Your task to perform on an android device: Search for pizza restaurants on Maps Image 0: 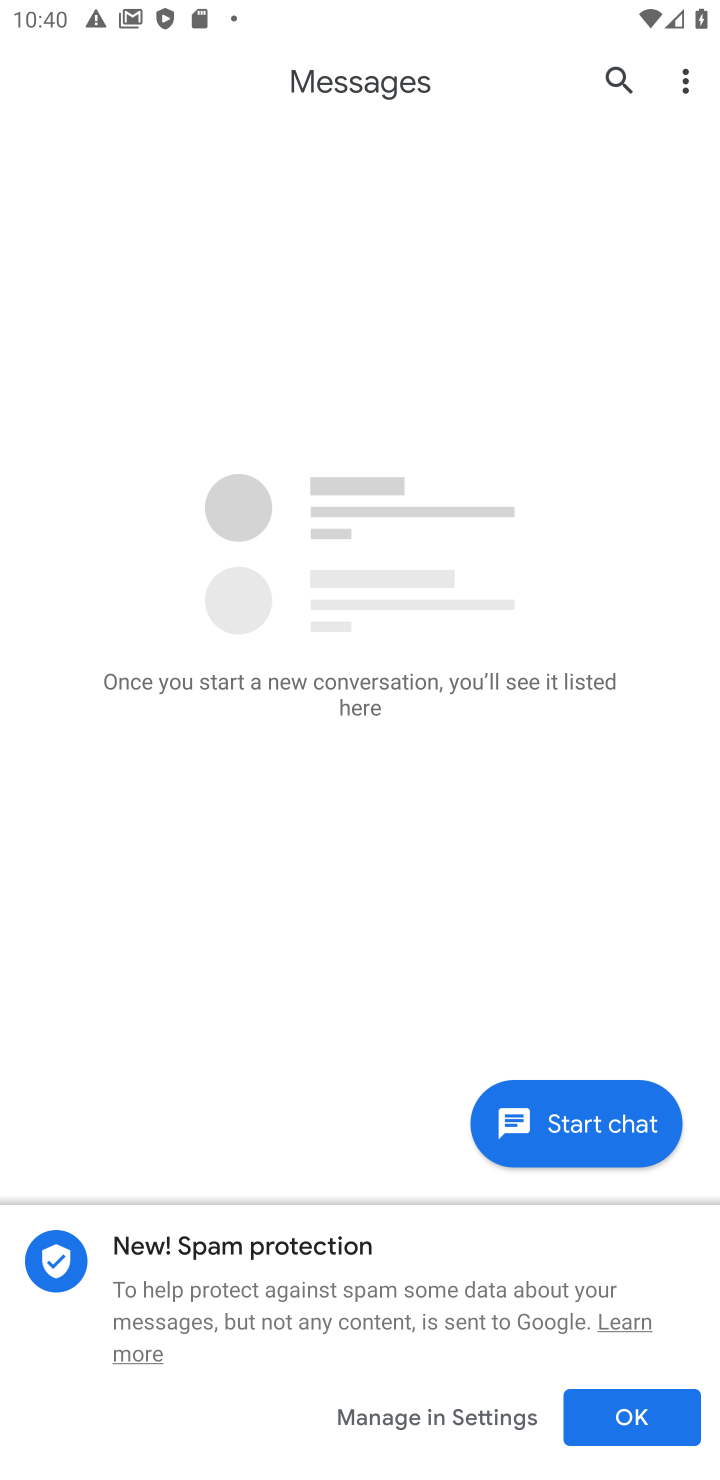
Step 0: press home button
Your task to perform on an android device: Search for pizza restaurants on Maps Image 1: 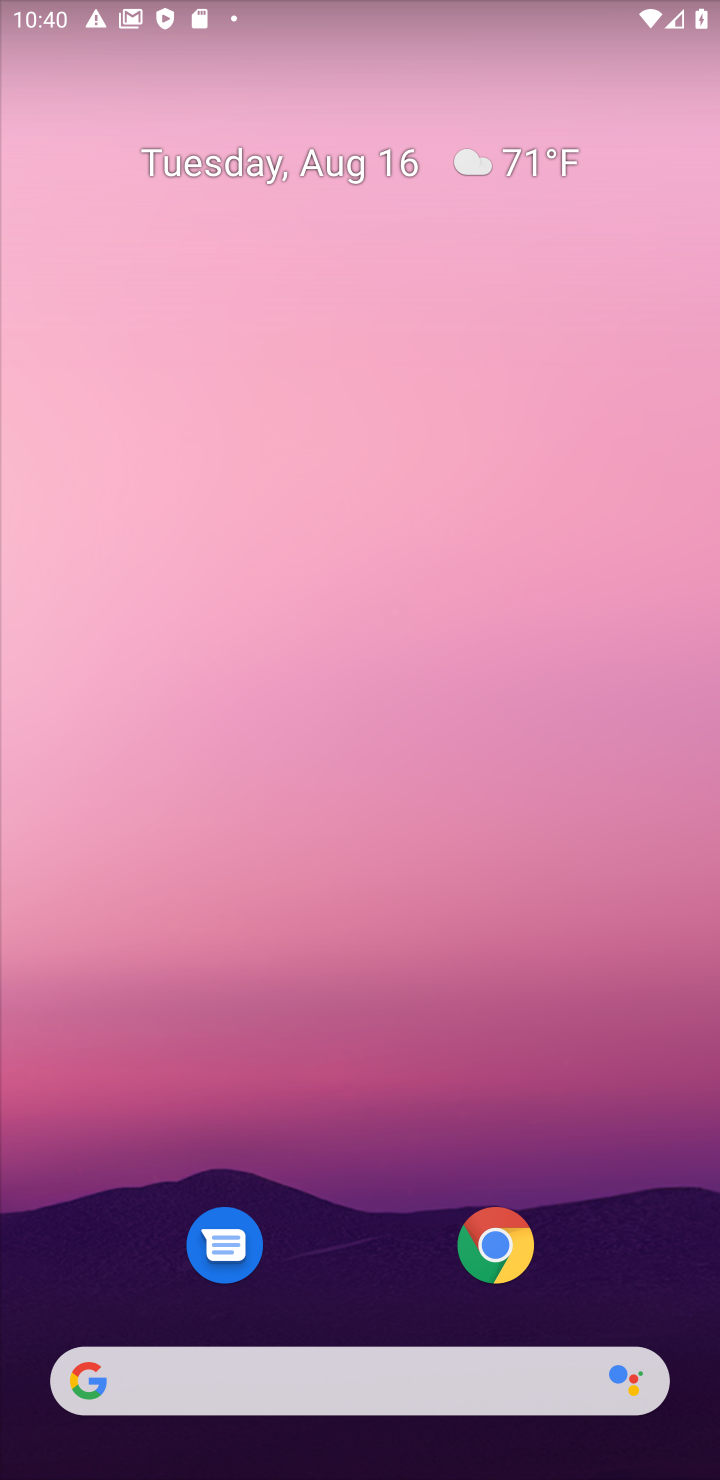
Step 1: drag from (406, 1151) to (406, 268)
Your task to perform on an android device: Search for pizza restaurants on Maps Image 2: 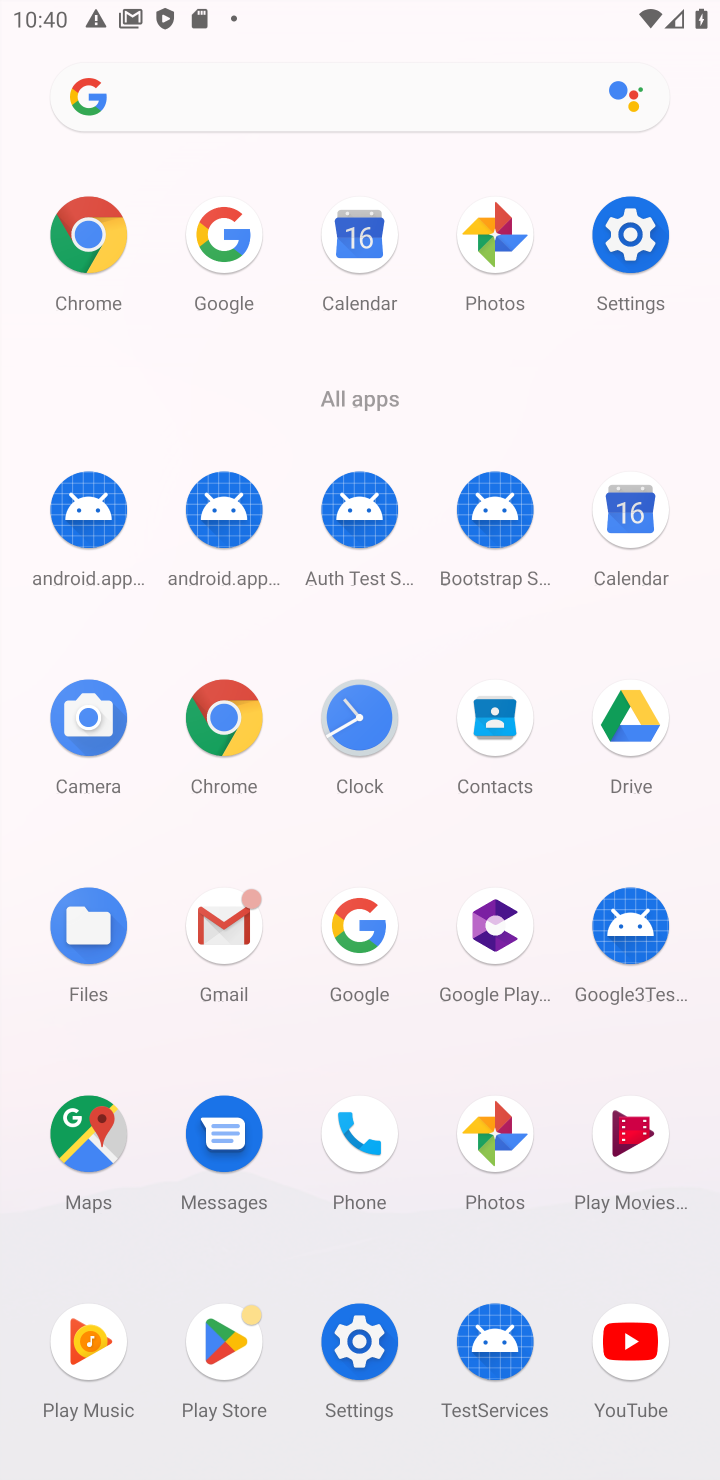
Step 2: click (90, 1122)
Your task to perform on an android device: Search for pizza restaurants on Maps Image 3: 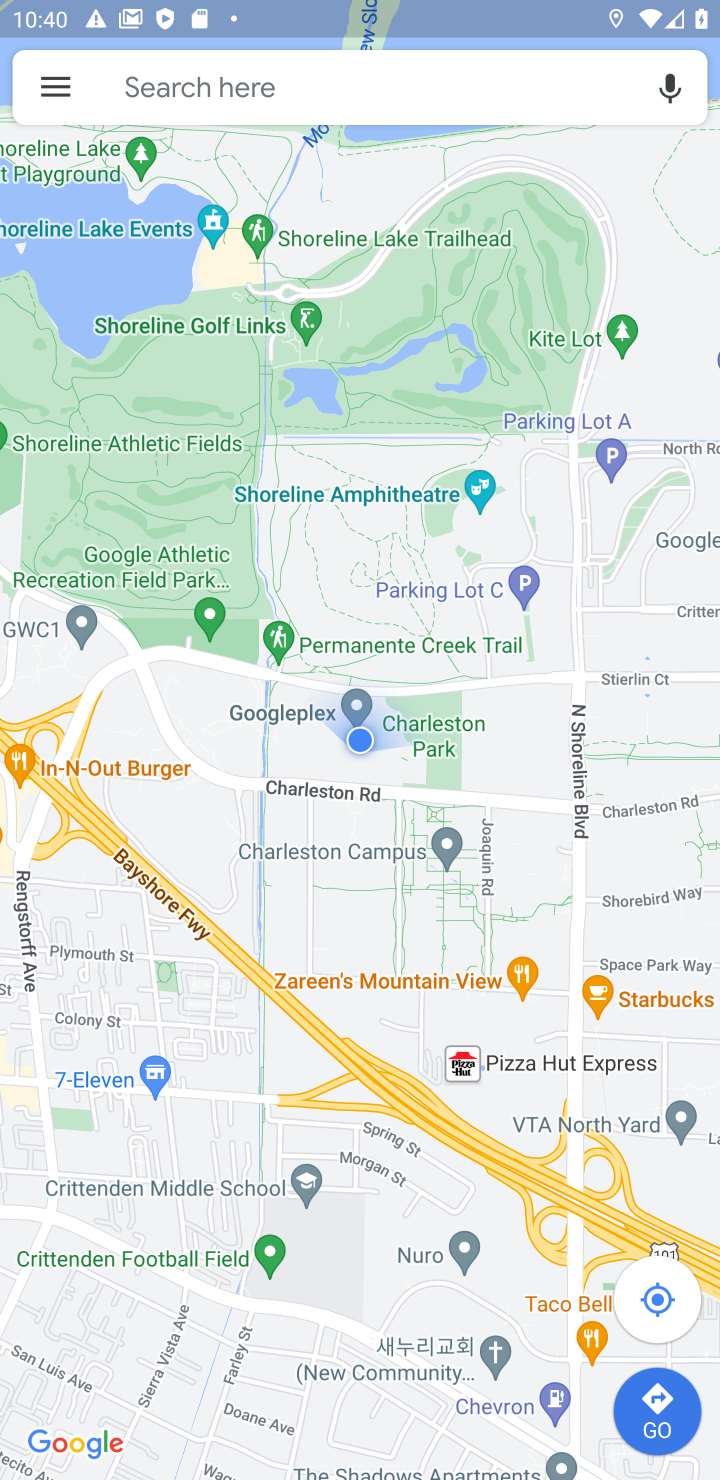
Step 3: click (346, 79)
Your task to perform on an android device: Search for pizza restaurants on Maps Image 4: 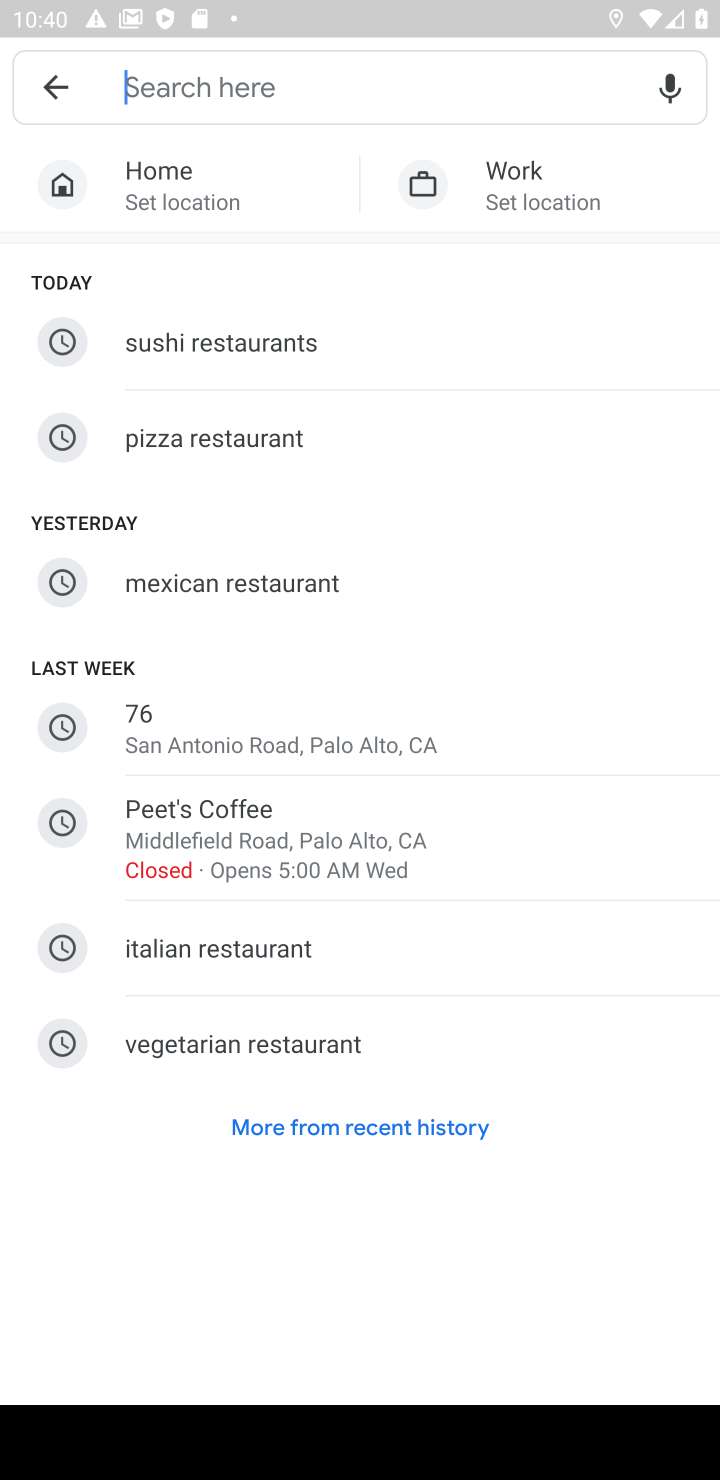
Step 4: click (348, 438)
Your task to perform on an android device: Search for pizza restaurants on Maps Image 5: 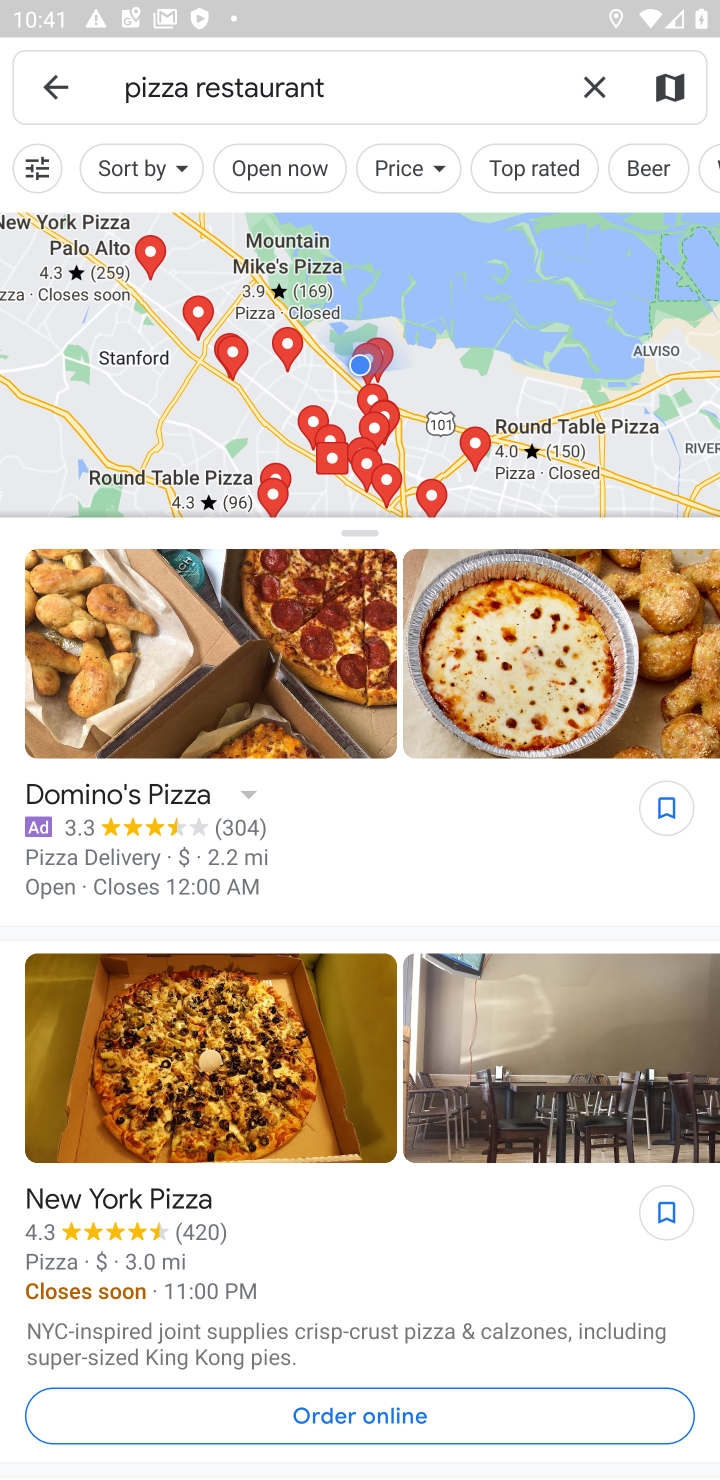
Step 5: task complete